Your task to perform on an android device: Open display settings Image 0: 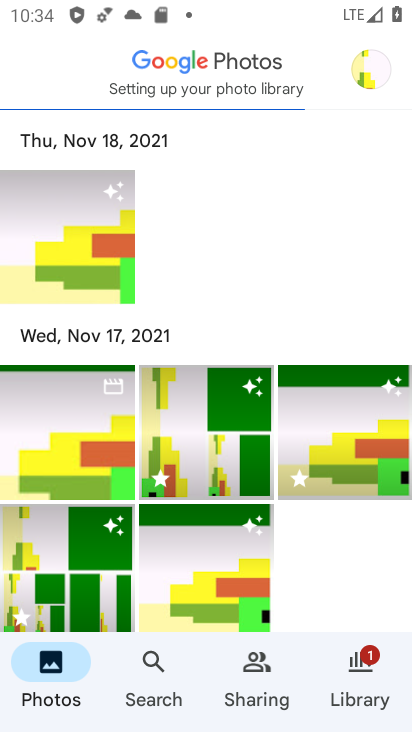
Step 0: press home button
Your task to perform on an android device: Open display settings Image 1: 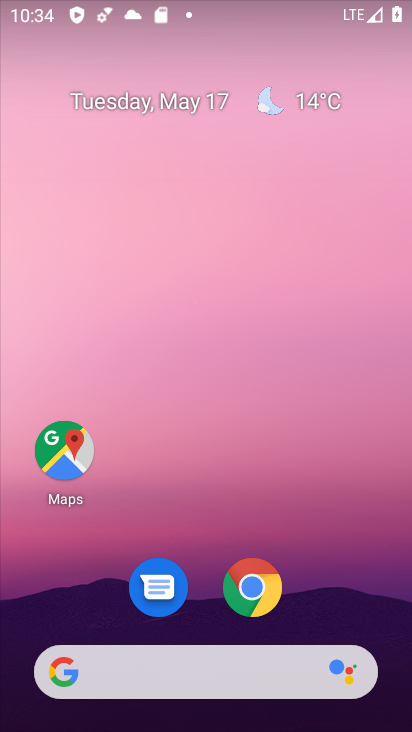
Step 1: drag from (321, 583) to (289, 408)
Your task to perform on an android device: Open display settings Image 2: 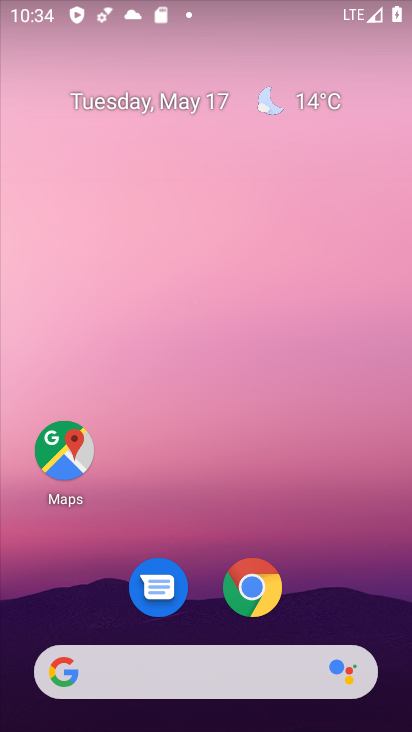
Step 2: drag from (308, 599) to (276, 261)
Your task to perform on an android device: Open display settings Image 3: 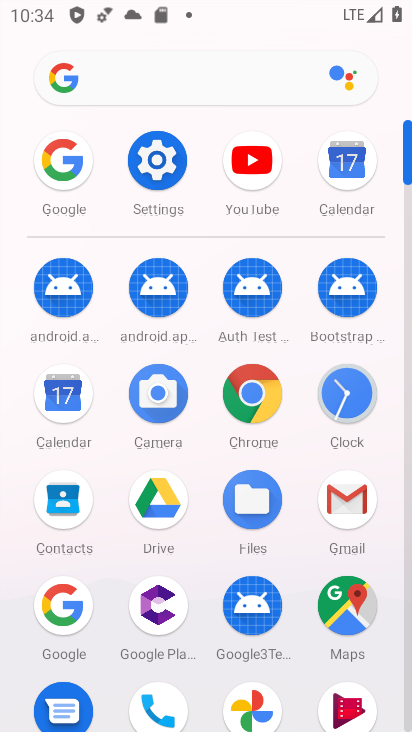
Step 3: click (162, 165)
Your task to perform on an android device: Open display settings Image 4: 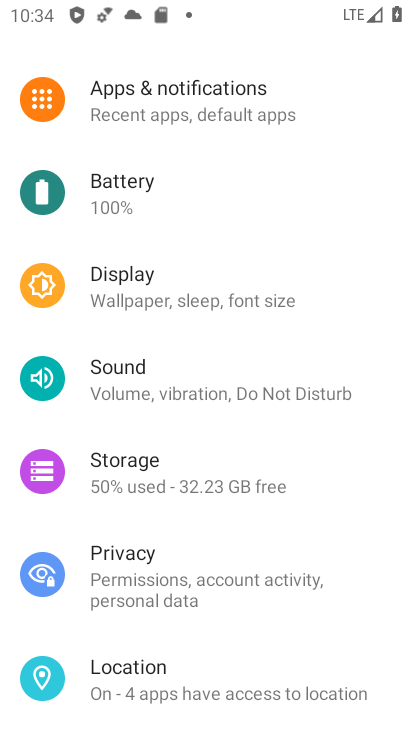
Step 4: click (184, 301)
Your task to perform on an android device: Open display settings Image 5: 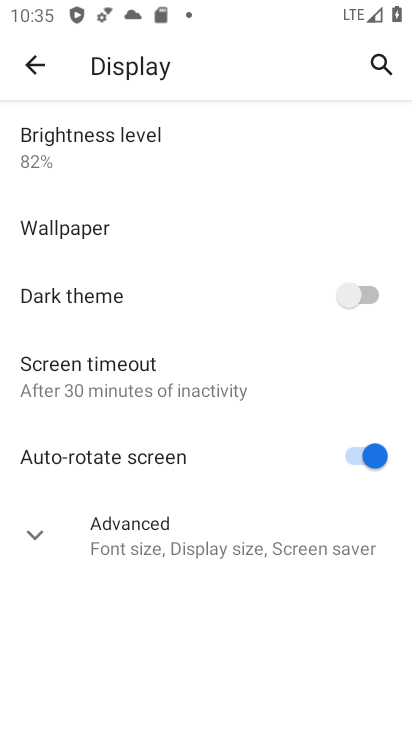
Step 5: task complete